Your task to perform on an android device: Open Android settings Image 0: 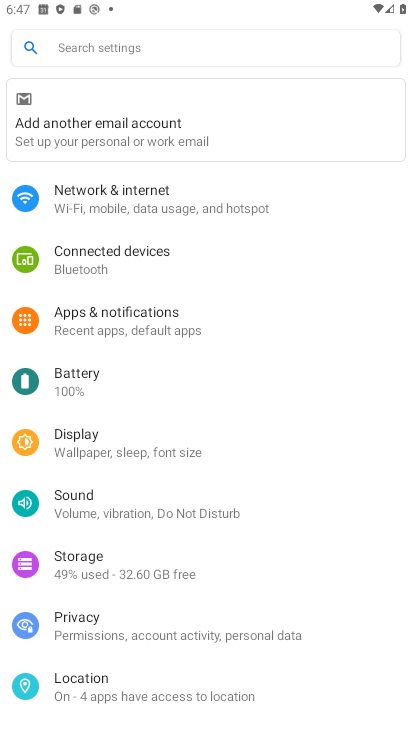
Step 0: press home button
Your task to perform on an android device: Open Android settings Image 1: 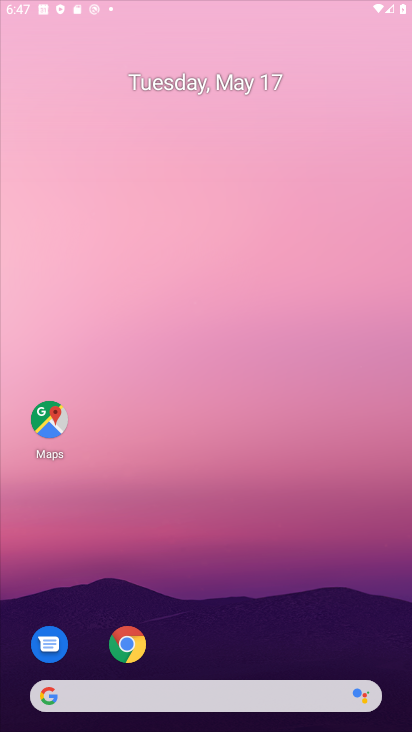
Step 1: drag from (349, 658) to (234, 85)
Your task to perform on an android device: Open Android settings Image 2: 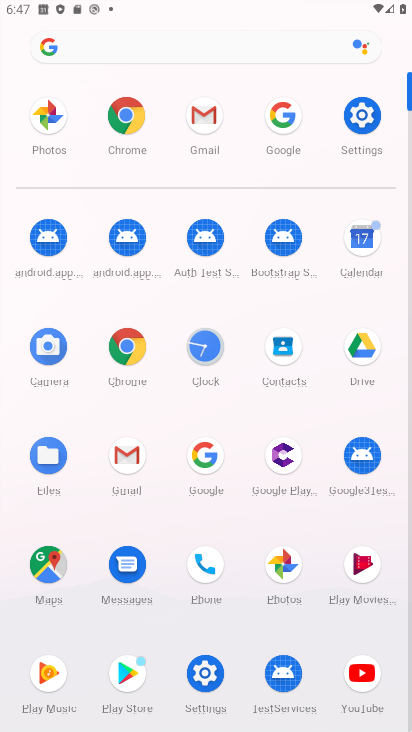
Step 2: click (369, 129)
Your task to perform on an android device: Open Android settings Image 3: 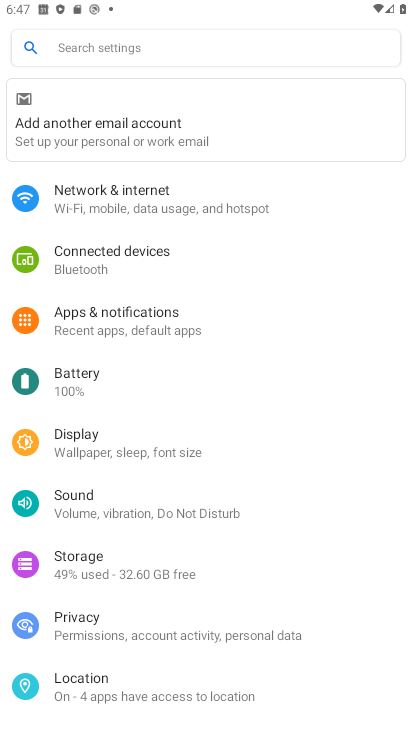
Step 3: drag from (124, 632) to (169, 126)
Your task to perform on an android device: Open Android settings Image 4: 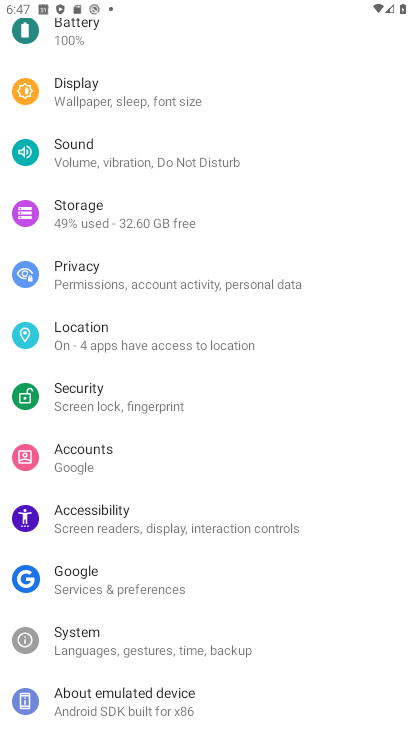
Step 4: click (124, 702)
Your task to perform on an android device: Open Android settings Image 5: 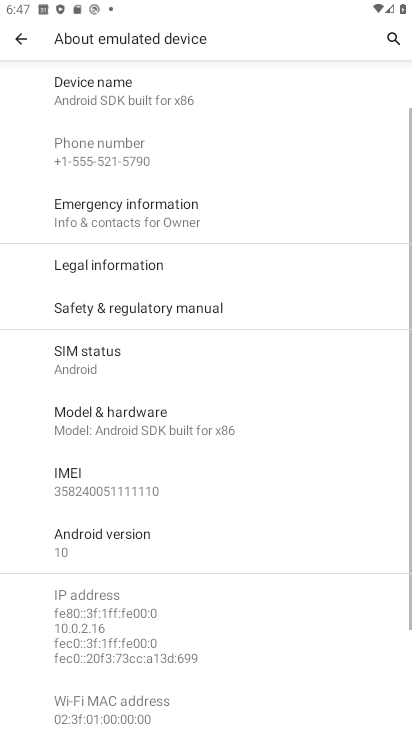
Step 5: click (125, 536)
Your task to perform on an android device: Open Android settings Image 6: 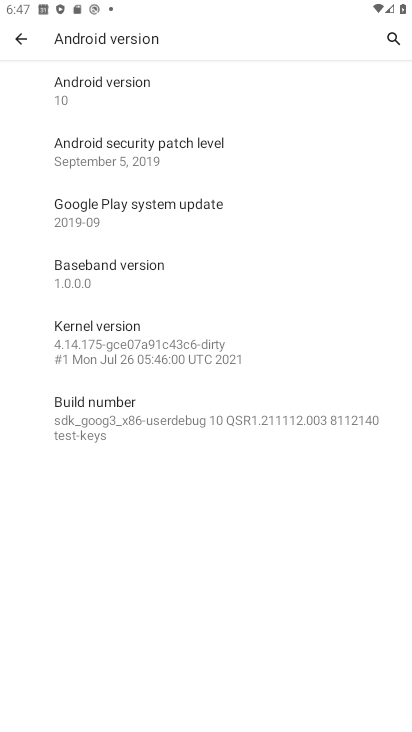
Step 6: task complete